Your task to perform on an android device: turn on airplane mode Image 0: 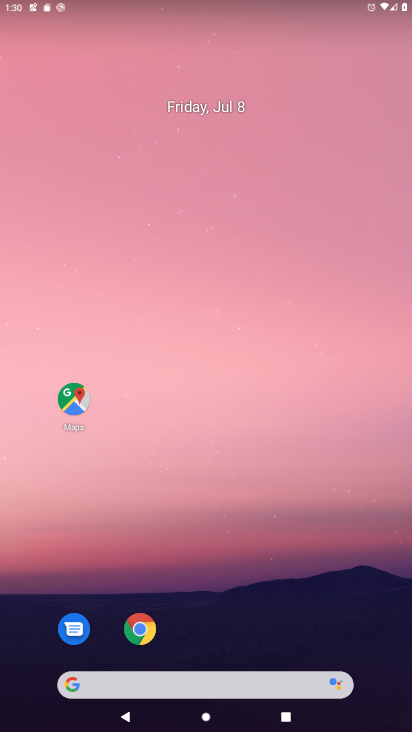
Step 0: drag from (243, 586) to (252, 84)
Your task to perform on an android device: turn on airplane mode Image 1: 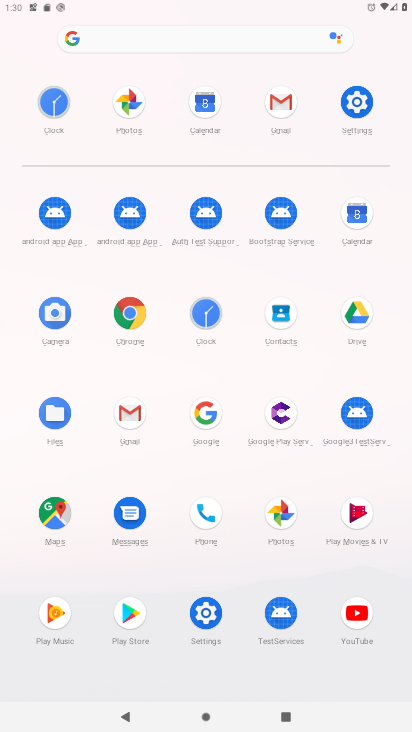
Step 1: click (361, 102)
Your task to perform on an android device: turn on airplane mode Image 2: 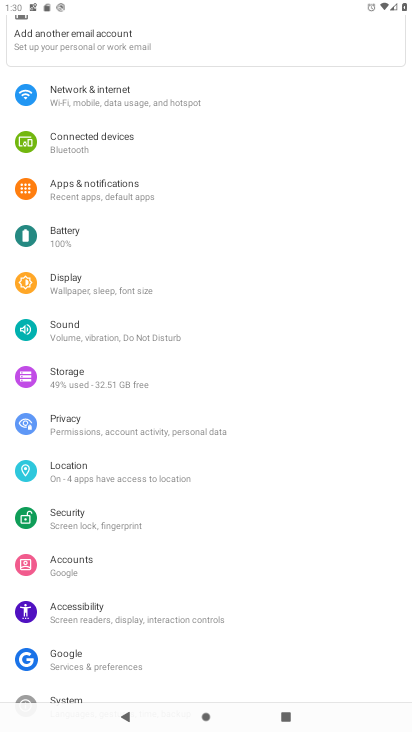
Step 2: click (166, 106)
Your task to perform on an android device: turn on airplane mode Image 3: 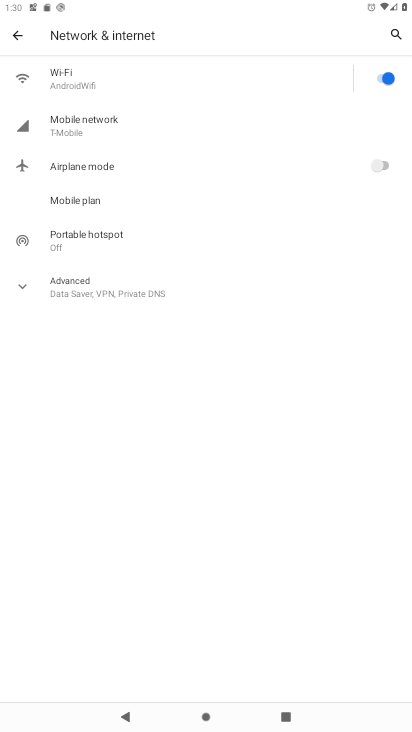
Step 3: click (383, 170)
Your task to perform on an android device: turn on airplane mode Image 4: 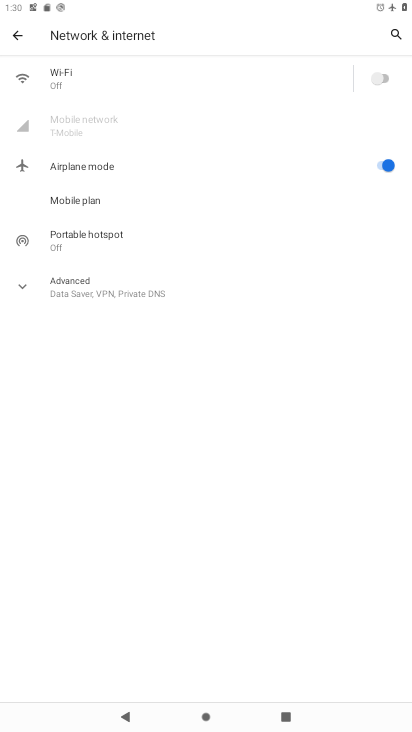
Step 4: task complete